Your task to perform on an android device: add a contact Image 0: 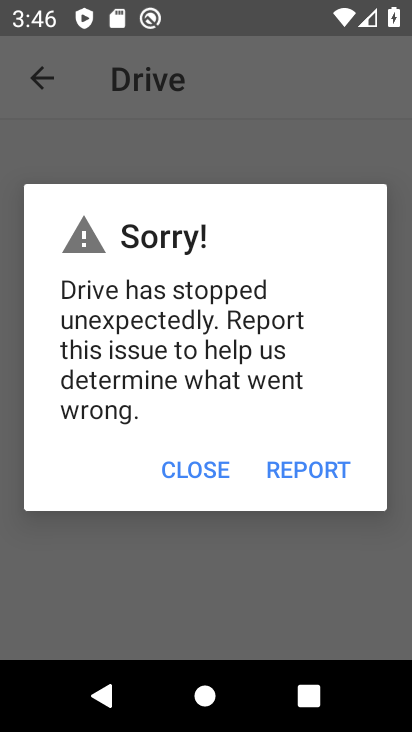
Step 0: click (187, 486)
Your task to perform on an android device: add a contact Image 1: 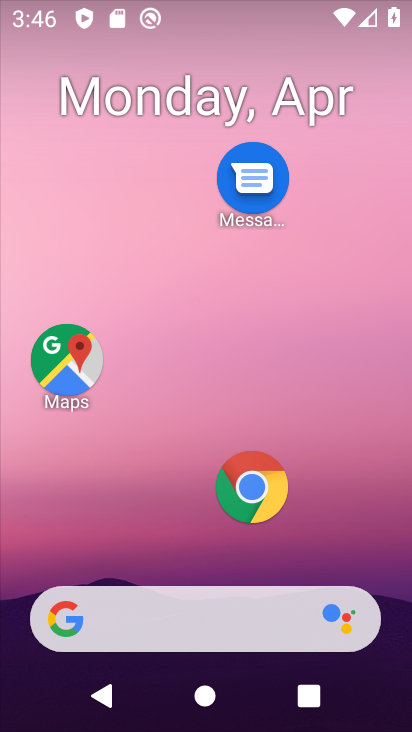
Step 1: press home button
Your task to perform on an android device: add a contact Image 2: 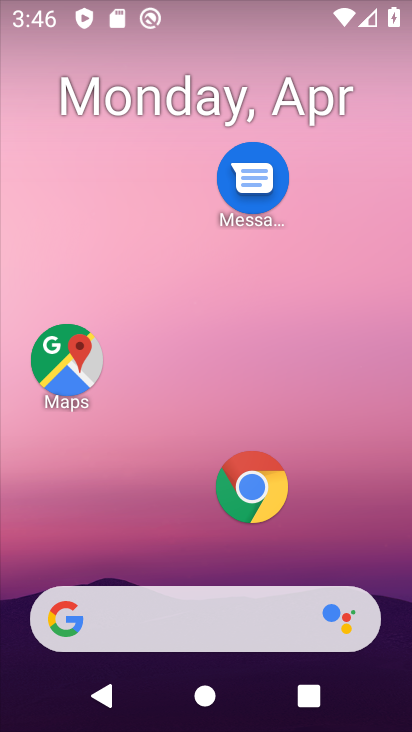
Step 2: drag from (144, 530) to (205, 7)
Your task to perform on an android device: add a contact Image 3: 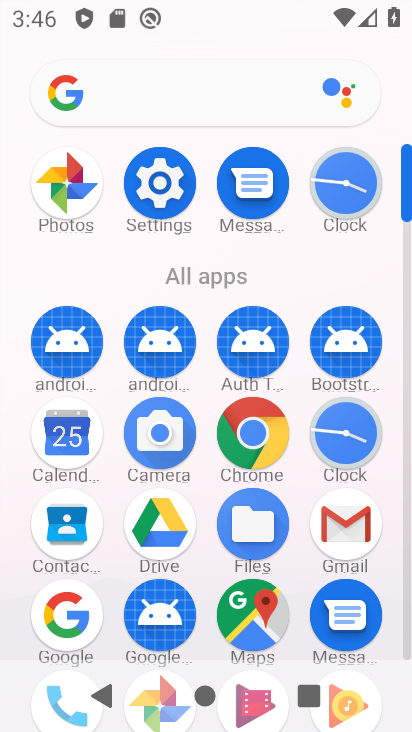
Step 3: click (68, 570)
Your task to perform on an android device: add a contact Image 4: 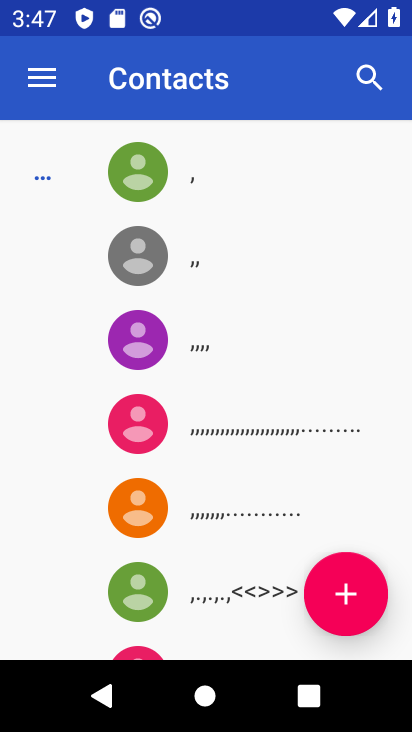
Step 4: click (337, 585)
Your task to perform on an android device: add a contact Image 5: 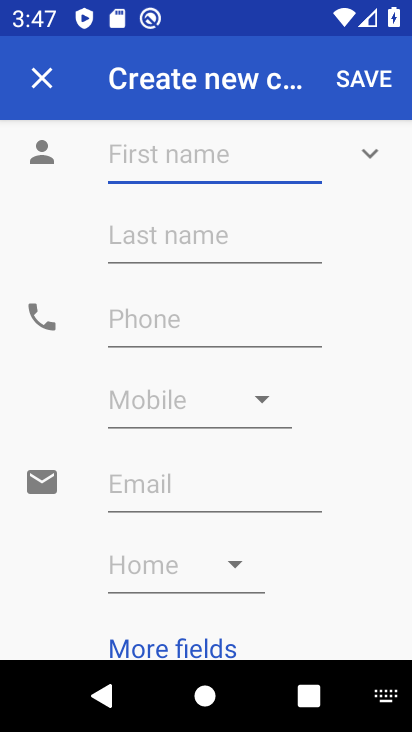
Step 5: type "dfuhkchfdvjkdhf"
Your task to perform on an android device: add a contact Image 6: 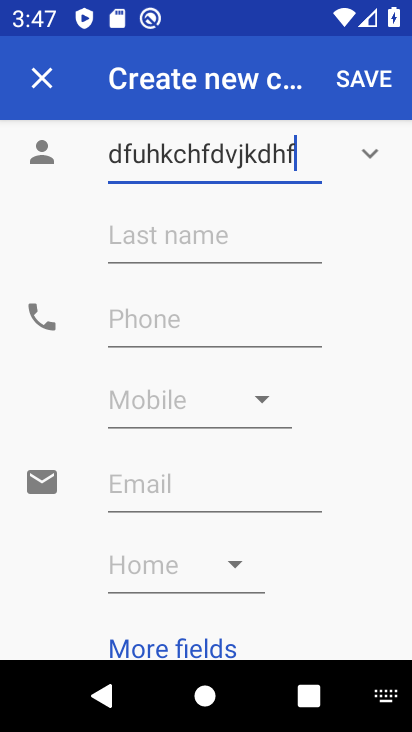
Step 6: click (398, 92)
Your task to perform on an android device: add a contact Image 7: 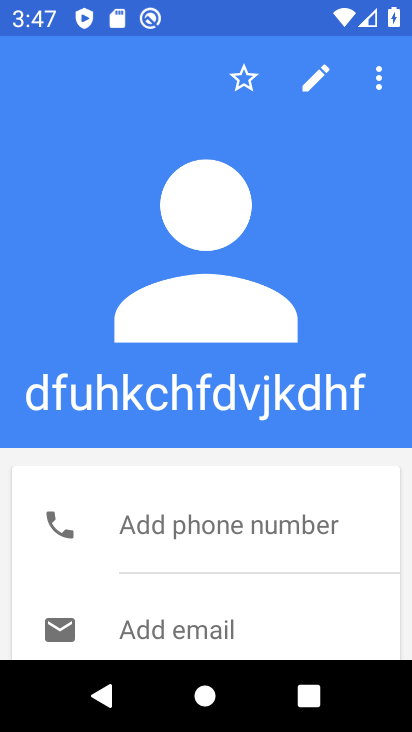
Step 7: task complete